Your task to perform on an android device: Open eBay Image 0: 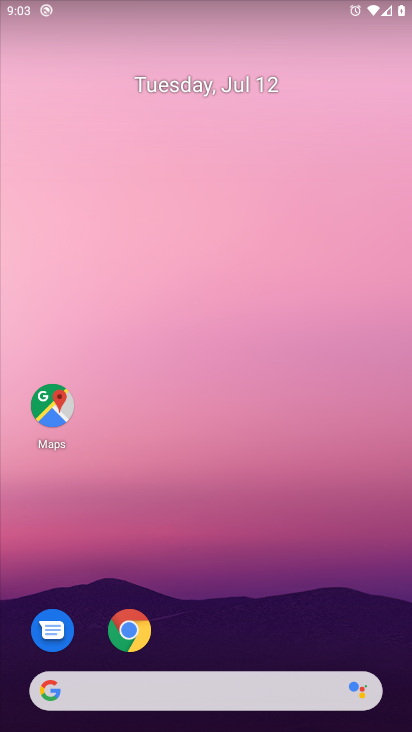
Step 0: press home button
Your task to perform on an android device: Open eBay Image 1: 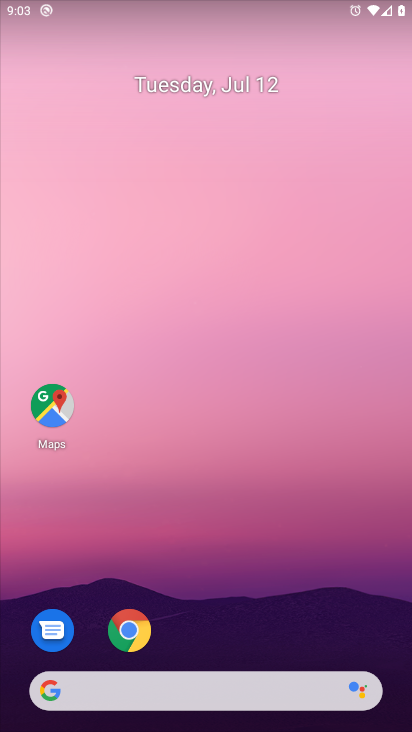
Step 1: click (53, 687)
Your task to perform on an android device: Open eBay Image 2: 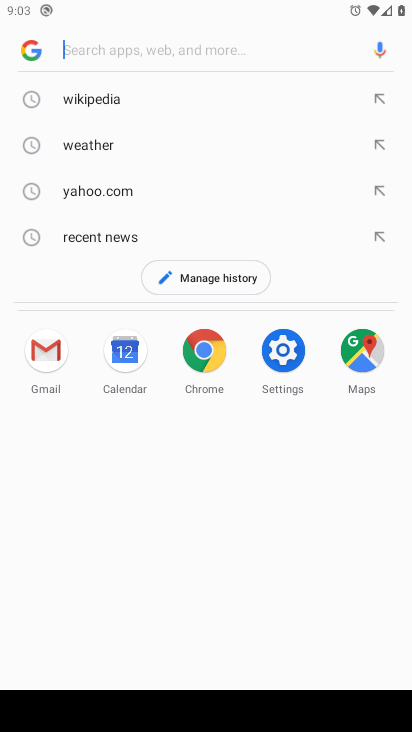
Step 2: type "eBay"
Your task to perform on an android device: Open eBay Image 3: 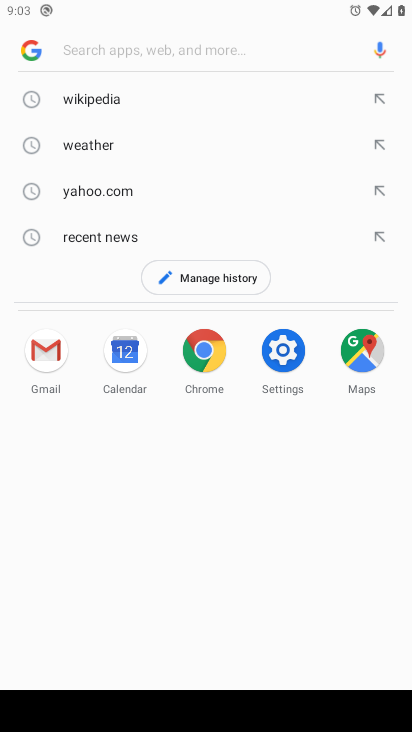
Step 3: click (133, 40)
Your task to perform on an android device: Open eBay Image 4: 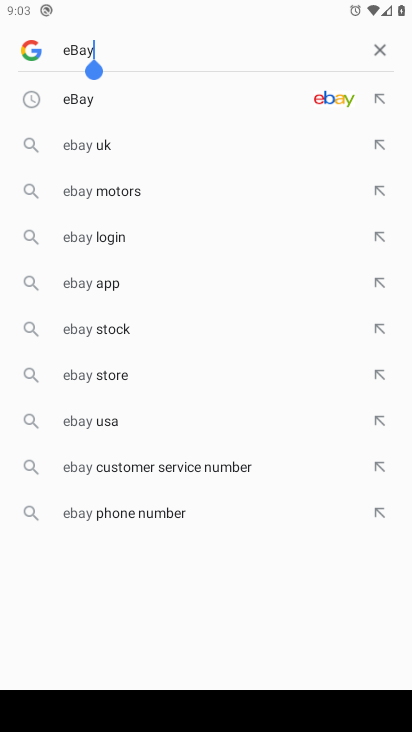
Step 4: click (80, 106)
Your task to perform on an android device: Open eBay Image 5: 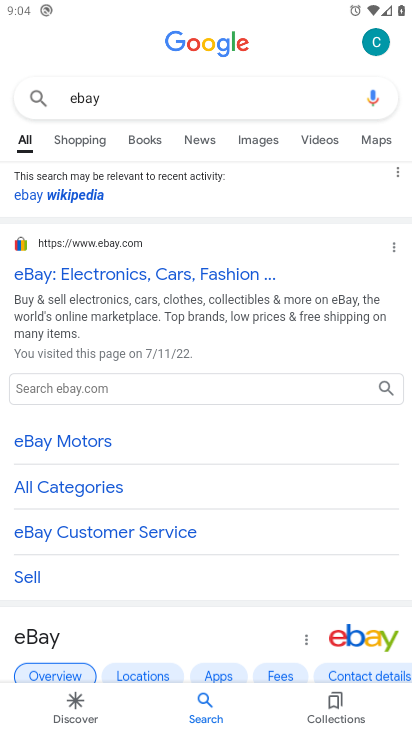
Step 5: click (105, 286)
Your task to perform on an android device: Open eBay Image 6: 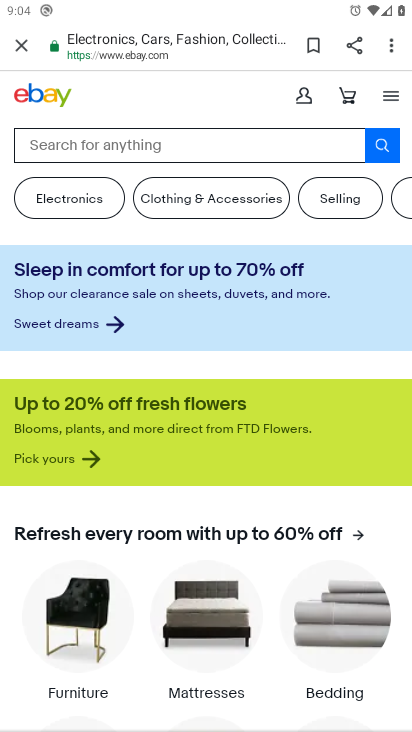
Step 6: task complete